Your task to perform on an android device: open the mobile data screen to see how much data has been used Image 0: 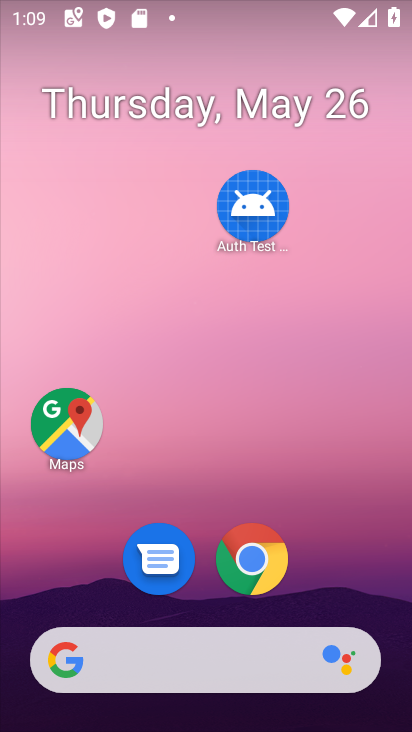
Step 0: drag from (359, 7) to (278, 607)
Your task to perform on an android device: open the mobile data screen to see how much data has been used Image 1: 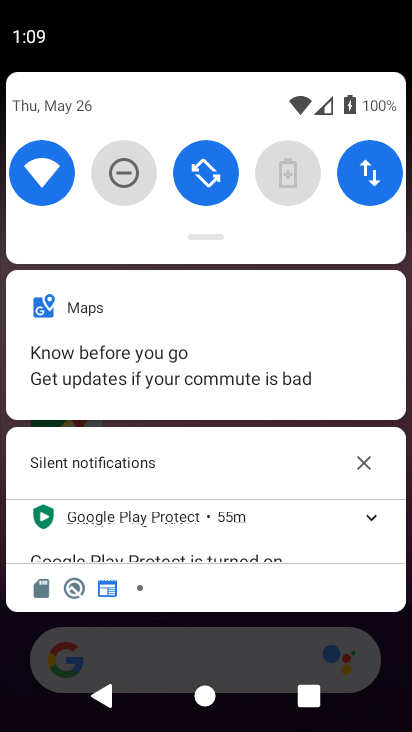
Step 1: click (373, 176)
Your task to perform on an android device: open the mobile data screen to see how much data has been used Image 2: 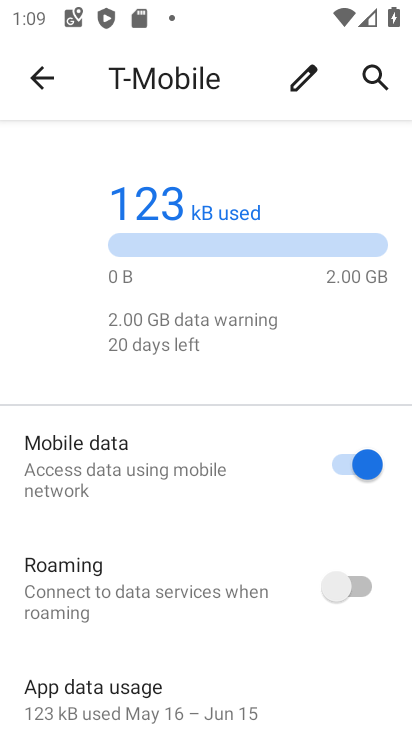
Step 2: task complete